Your task to perform on an android device: Search for pizza restaurants on Maps Image 0: 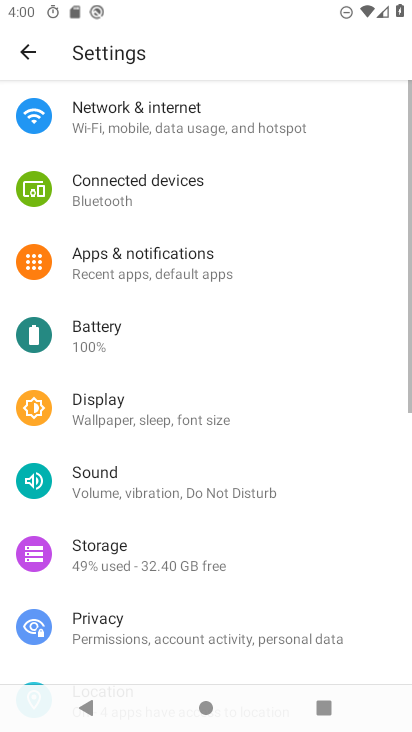
Step 0: press home button
Your task to perform on an android device: Search for pizza restaurants on Maps Image 1: 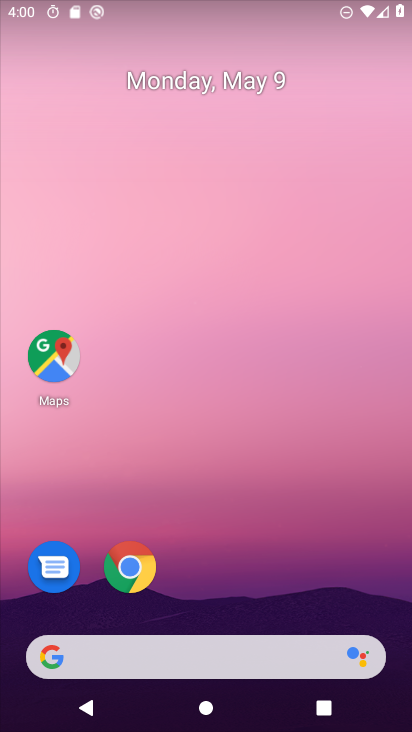
Step 1: click (52, 354)
Your task to perform on an android device: Search for pizza restaurants on Maps Image 2: 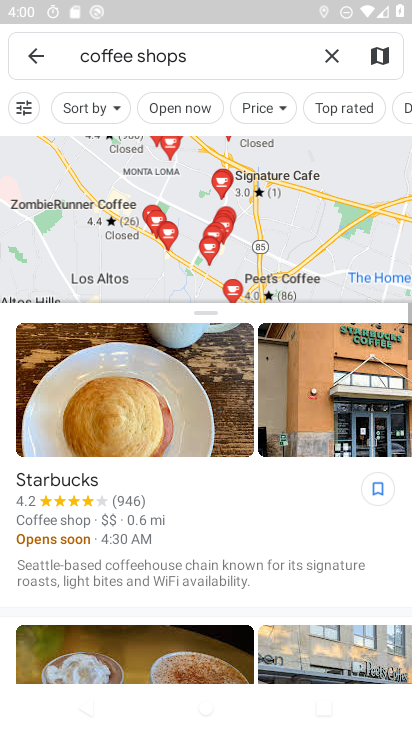
Step 2: click (336, 58)
Your task to perform on an android device: Search for pizza restaurants on Maps Image 3: 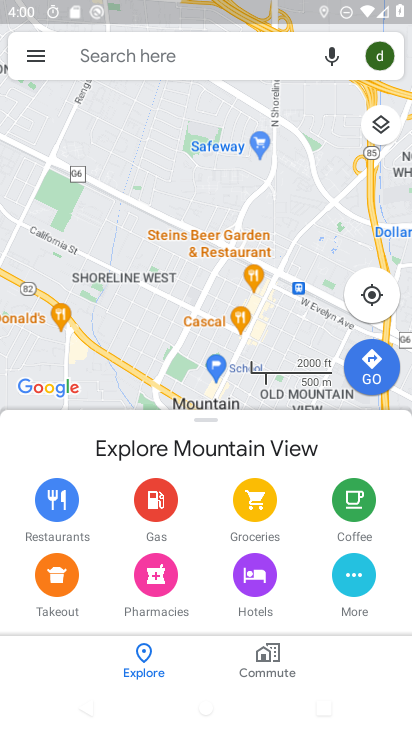
Step 3: click (201, 65)
Your task to perform on an android device: Search for pizza restaurants on Maps Image 4: 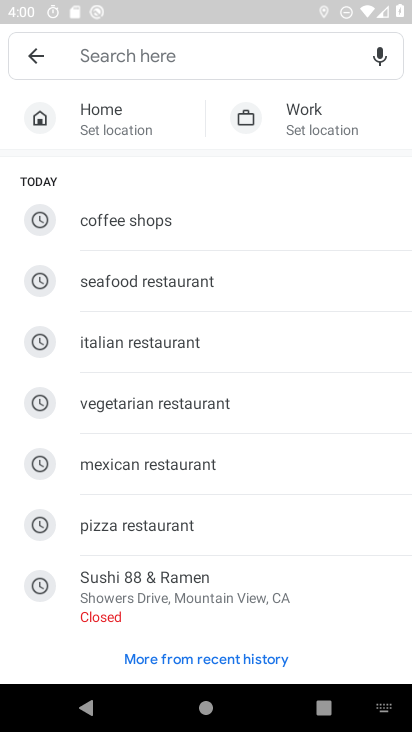
Step 4: click (184, 517)
Your task to perform on an android device: Search for pizza restaurants on Maps Image 5: 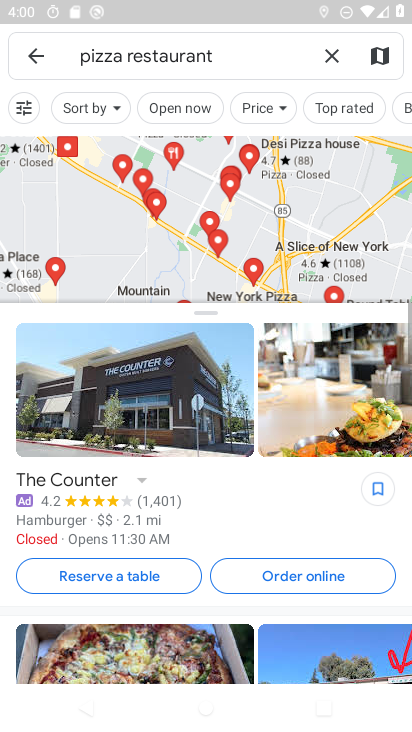
Step 5: task complete